Your task to perform on an android device: turn on location history Image 0: 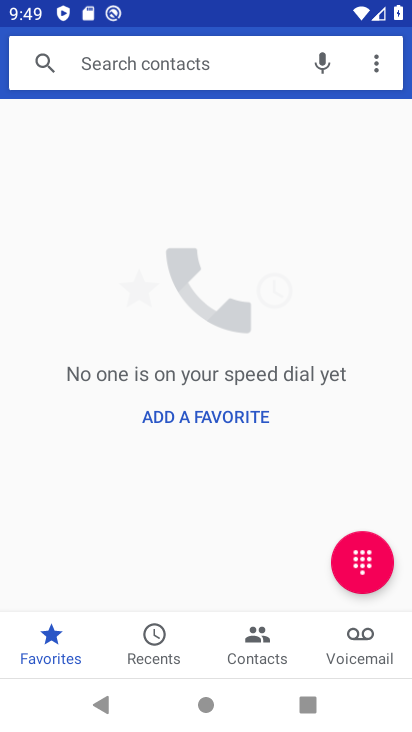
Step 0: press home button
Your task to perform on an android device: turn on location history Image 1: 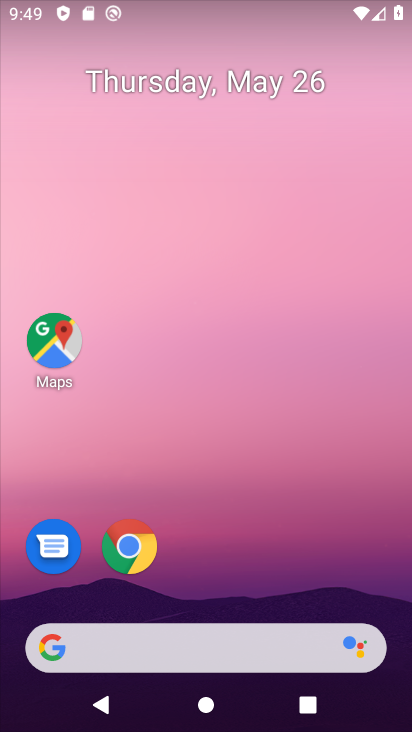
Step 1: drag from (288, 550) to (276, 183)
Your task to perform on an android device: turn on location history Image 2: 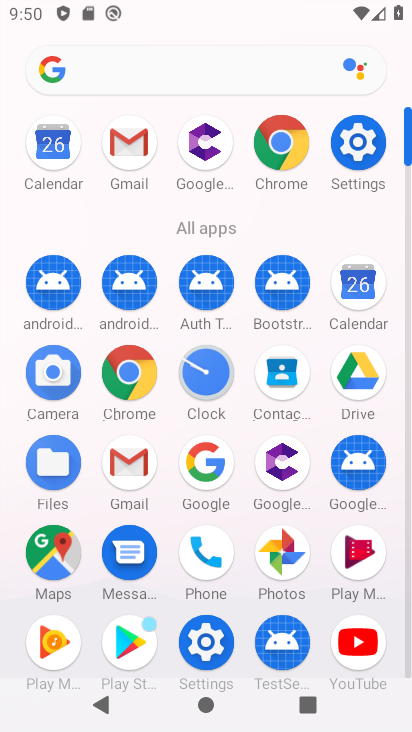
Step 2: click (355, 160)
Your task to perform on an android device: turn on location history Image 3: 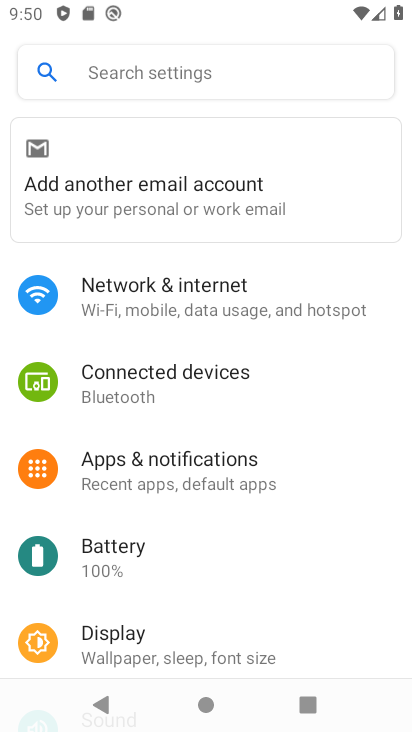
Step 3: drag from (351, 663) to (299, 227)
Your task to perform on an android device: turn on location history Image 4: 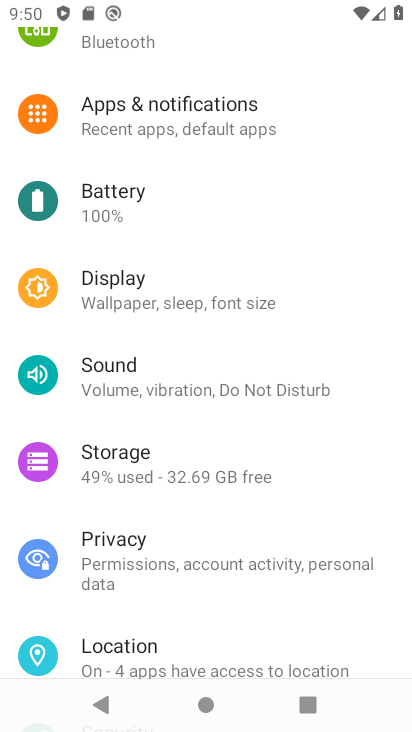
Step 4: click (207, 665)
Your task to perform on an android device: turn on location history Image 5: 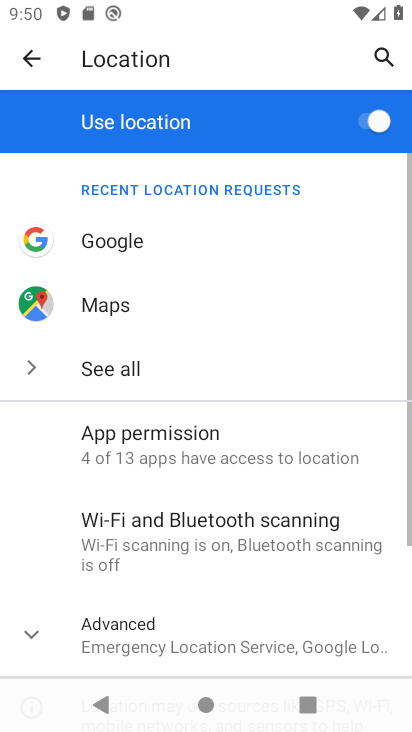
Step 5: click (31, 631)
Your task to perform on an android device: turn on location history Image 6: 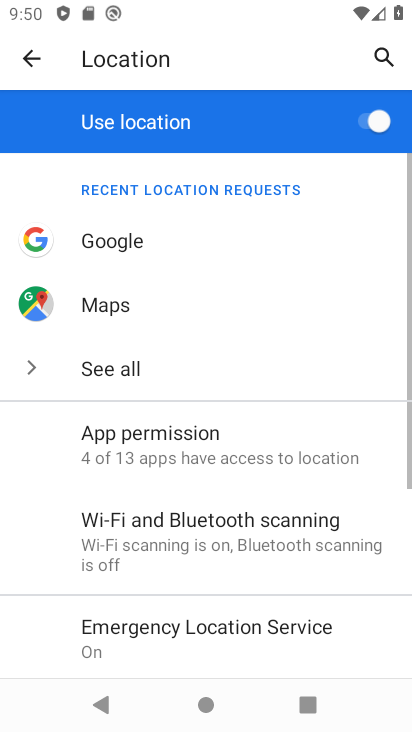
Step 6: drag from (277, 598) to (268, 308)
Your task to perform on an android device: turn on location history Image 7: 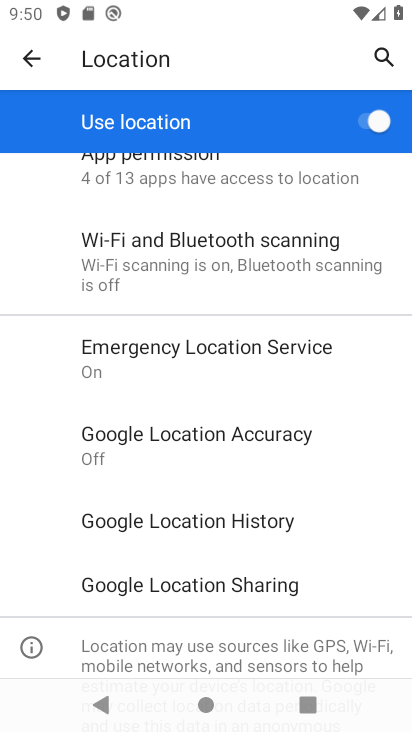
Step 7: click (249, 522)
Your task to perform on an android device: turn on location history Image 8: 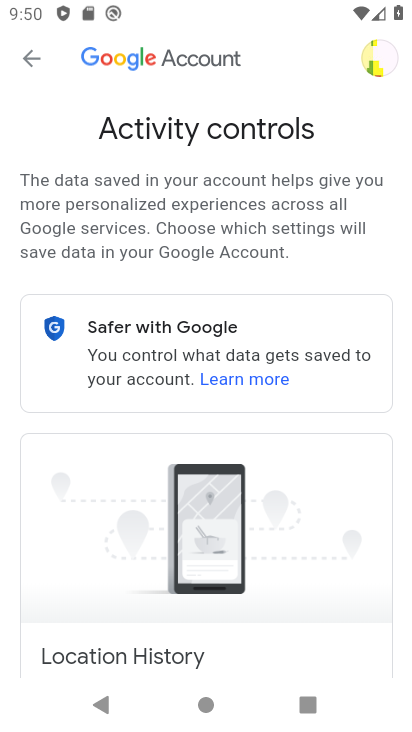
Step 8: drag from (381, 563) to (370, 175)
Your task to perform on an android device: turn on location history Image 9: 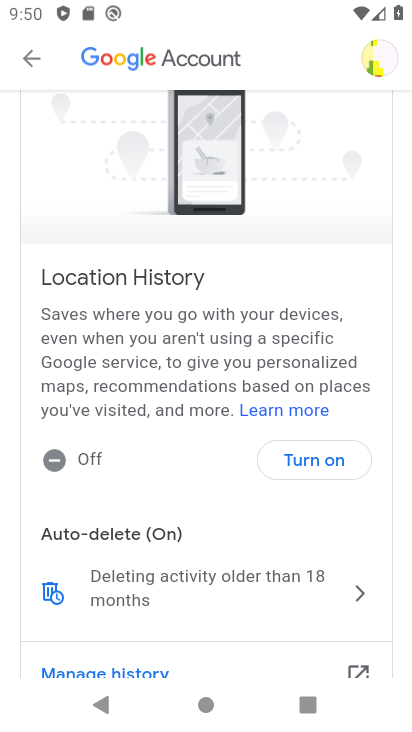
Step 9: click (338, 466)
Your task to perform on an android device: turn on location history Image 10: 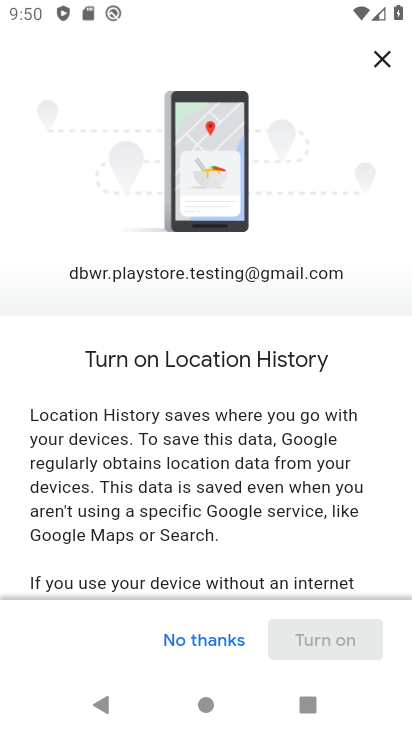
Step 10: click (338, 642)
Your task to perform on an android device: turn on location history Image 11: 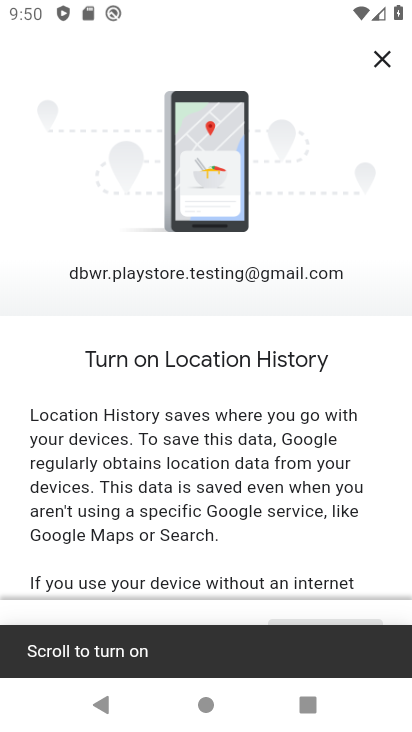
Step 11: drag from (326, 580) to (317, 260)
Your task to perform on an android device: turn on location history Image 12: 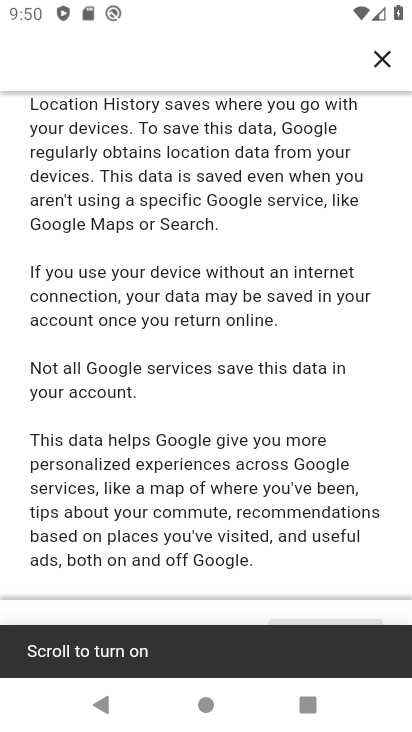
Step 12: drag from (297, 495) to (273, 269)
Your task to perform on an android device: turn on location history Image 13: 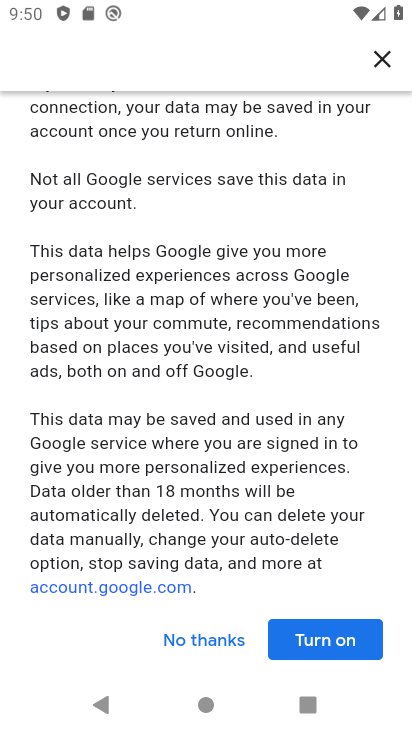
Step 13: click (316, 635)
Your task to perform on an android device: turn on location history Image 14: 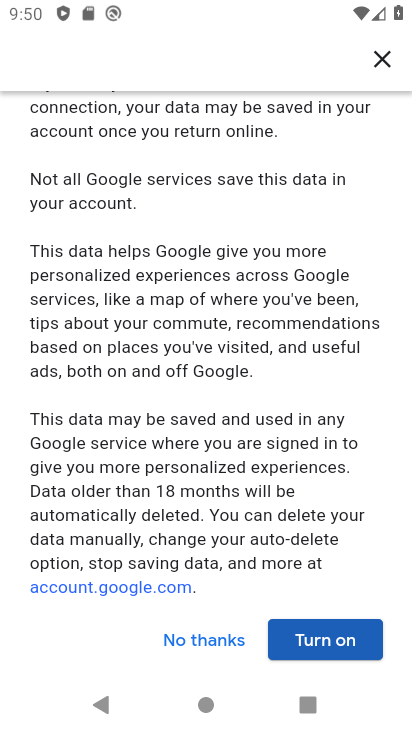
Step 14: click (343, 644)
Your task to perform on an android device: turn on location history Image 15: 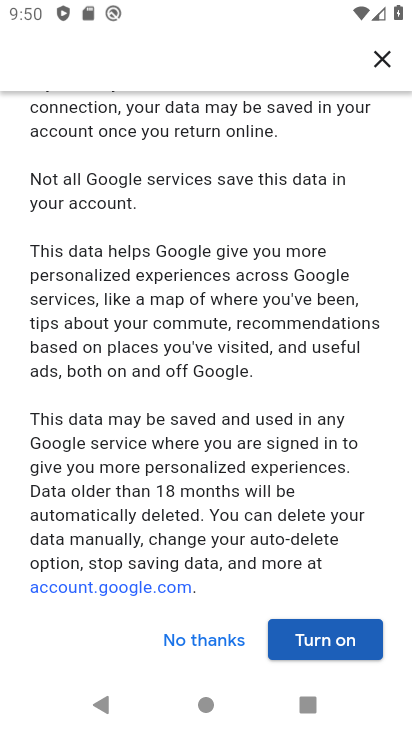
Step 15: click (328, 636)
Your task to perform on an android device: turn on location history Image 16: 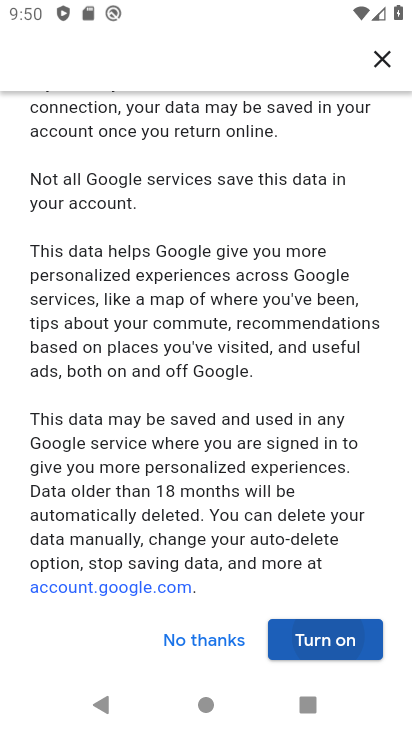
Step 16: click (327, 636)
Your task to perform on an android device: turn on location history Image 17: 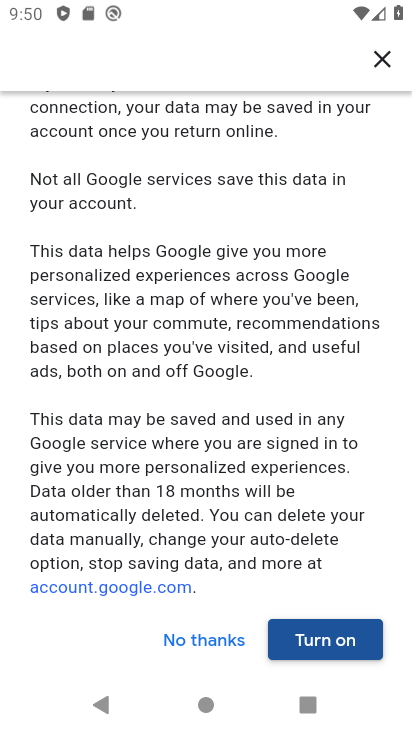
Step 17: click (327, 636)
Your task to perform on an android device: turn on location history Image 18: 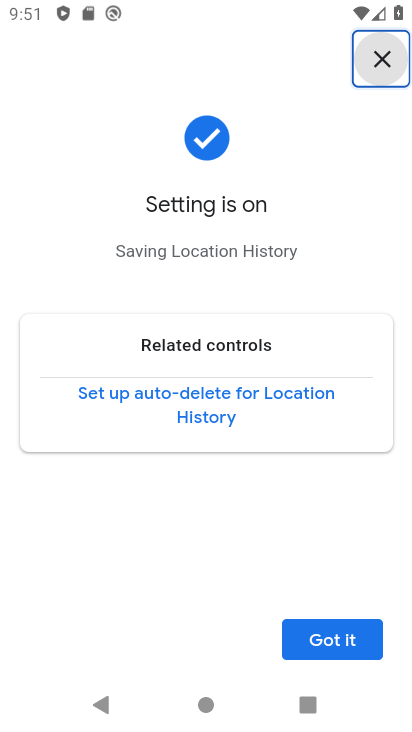
Step 18: task complete